Your task to perform on an android device: Open wifi settings Image 0: 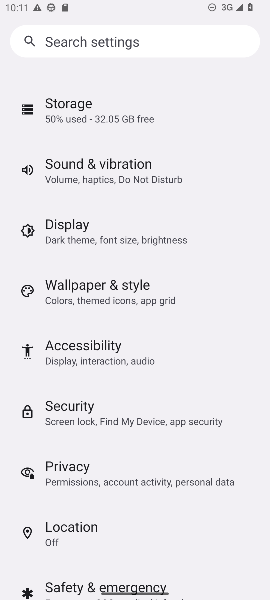
Step 0: drag from (137, 174) to (135, 542)
Your task to perform on an android device: Open wifi settings Image 1: 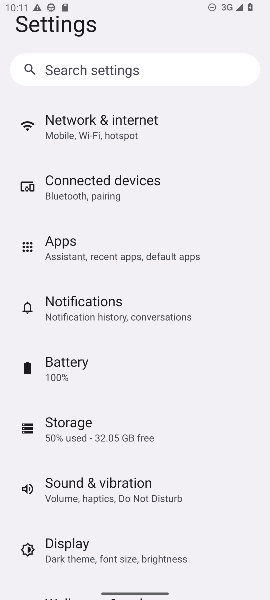
Step 1: drag from (150, 205) to (151, 396)
Your task to perform on an android device: Open wifi settings Image 2: 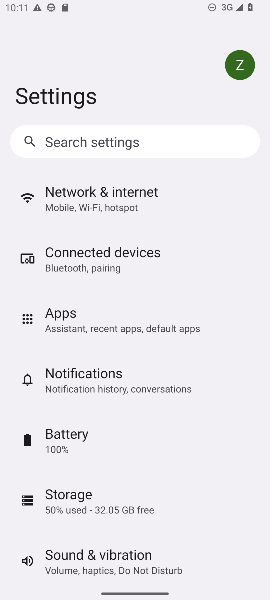
Step 2: click (108, 216)
Your task to perform on an android device: Open wifi settings Image 3: 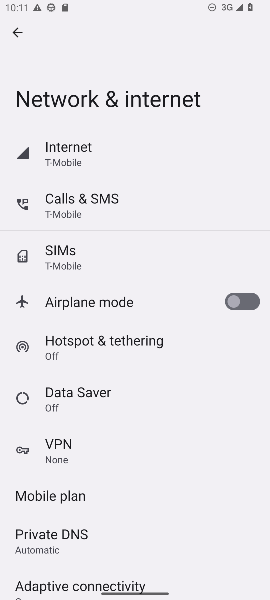
Step 3: click (76, 140)
Your task to perform on an android device: Open wifi settings Image 4: 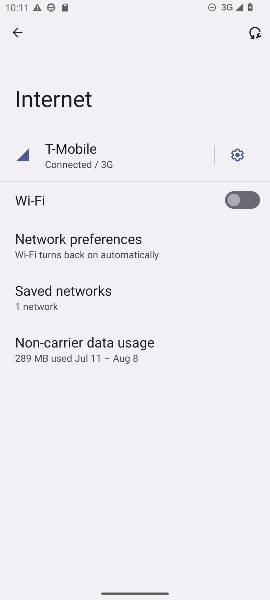
Step 4: task complete